Your task to perform on an android device: find snoozed emails in the gmail app Image 0: 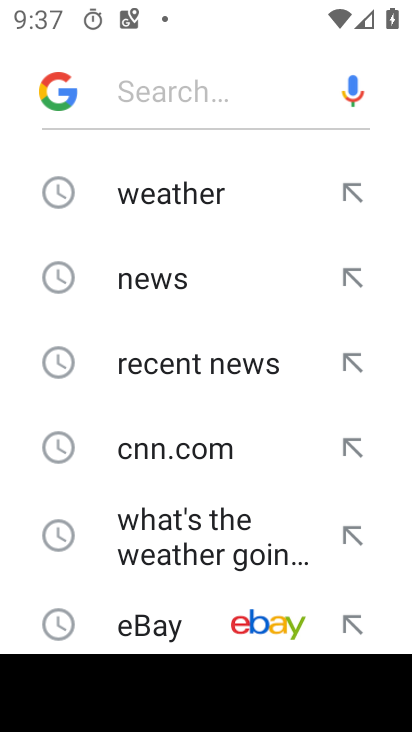
Step 0: press home button
Your task to perform on an android device: find snoozed emails in the gmail app Image 1: 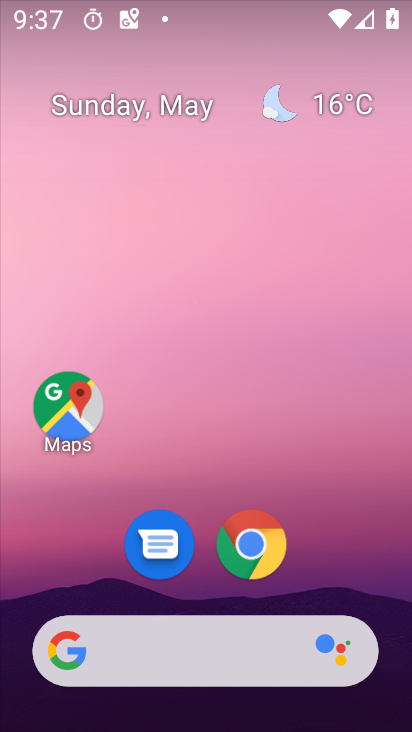
Step 1: drag from (300, 585) to (283, 158)
Your task to perform on an android device: find snoozed emails in the gmail app Image 2: 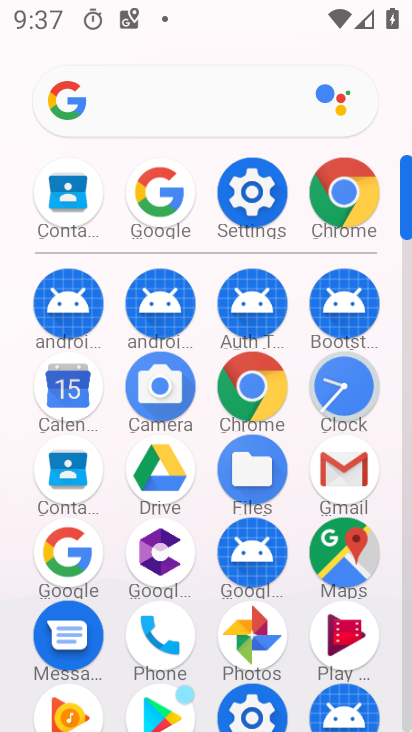
Step 2: click (347, 479)
Your task to perform on an android device: find snoozed emails in the gmail app Image 3: 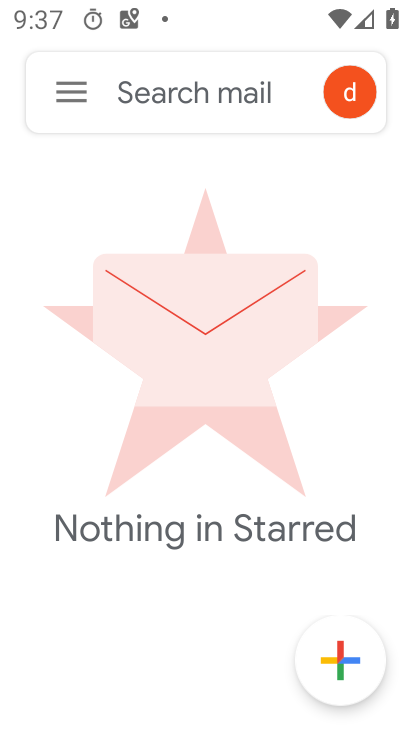
Step 3: click (74, 100)
Your task to perform on an android device: find snoozed emails in the gmail app Image 4: 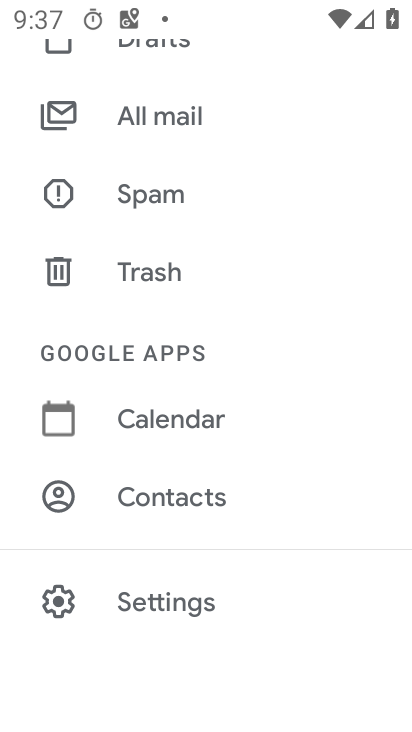
Step 4: drag from (147, 384) to (123, 613)
Your task to perform on an android device: find snoozed emails in the gmail app Image 5: 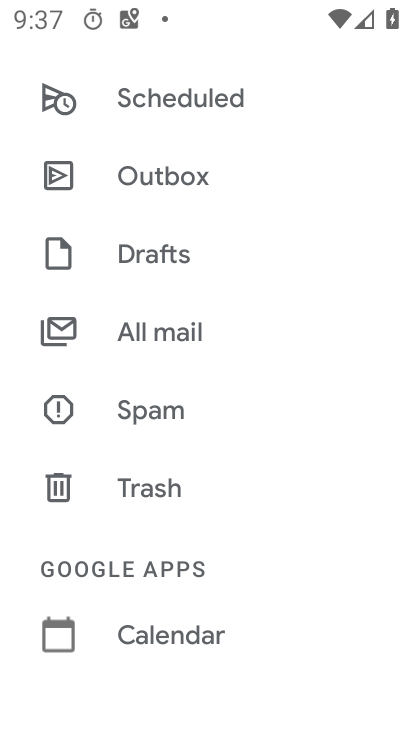
Step 5: drag from (122, 193) to (133, 584)
Your task to perform on an android device: find snoozed emails in the gmail app Image 6: 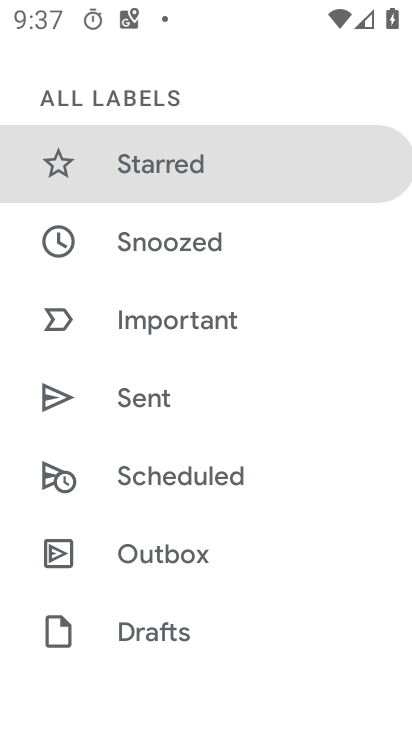
Step 6: drag from (132, 94) to (188, 434)
Your task to perform on an android device: find snoozed emails in the gmail app Image 7: 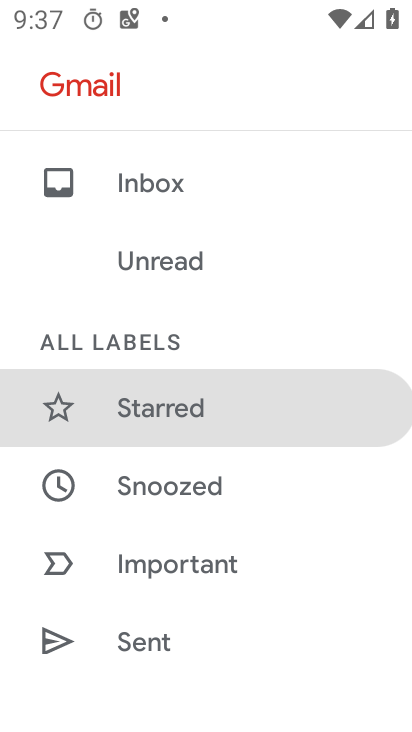
Step 7: click (188, 487)
Your task to perform on an android device: find snoozed emails in the gmail app Image 8: 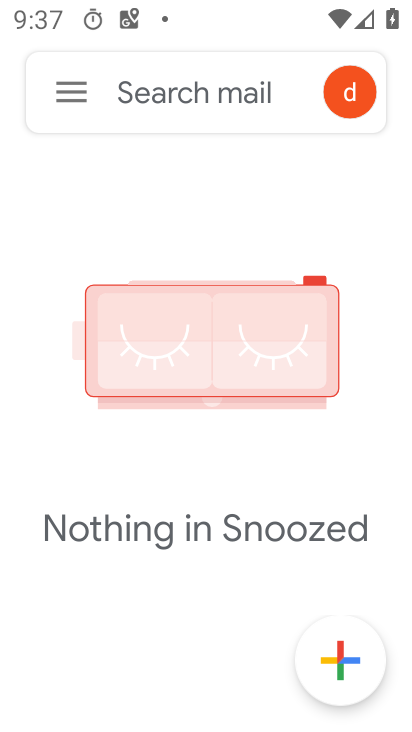
Step 8: task complete